Your task to perform on an android device: Go to ESPN.com Image 0: 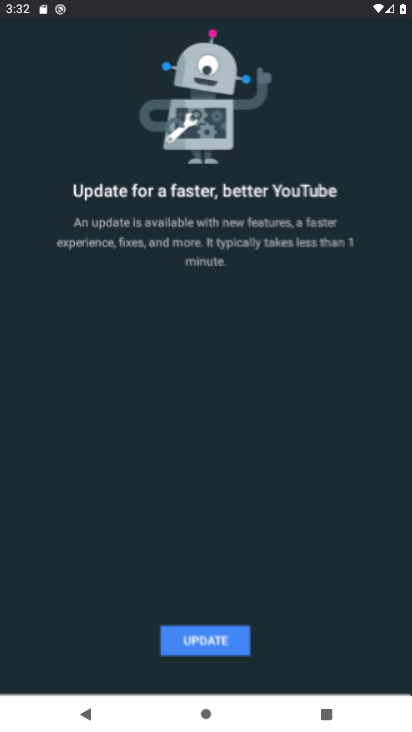
Step 0: drag from (225, 658) to (129, 241)
Your task to perform on an android device: Go to ESPN.com Image 1: 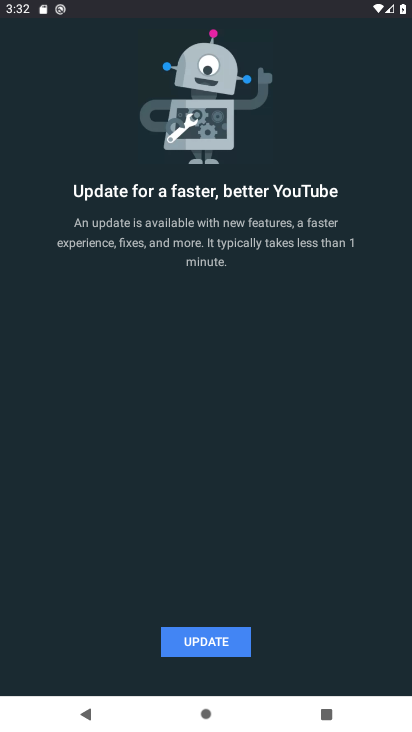
Step 1: press home button
Your task to perform on an android device: Go to ESPN.com Image 2: 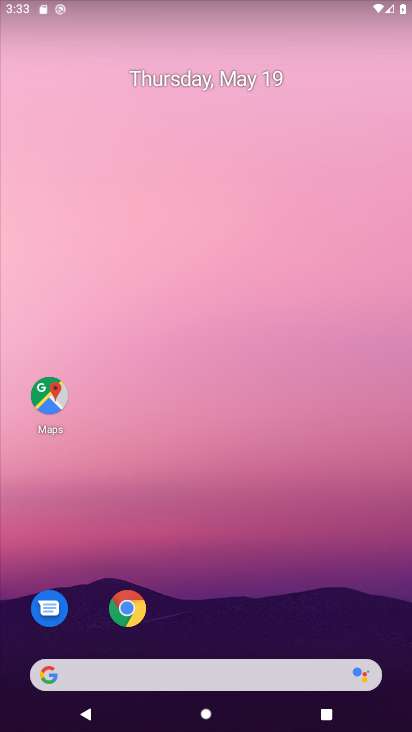
Step 2: click (114, 618)
Your task to perform on an android device: Go to ESPN.com Image 3: 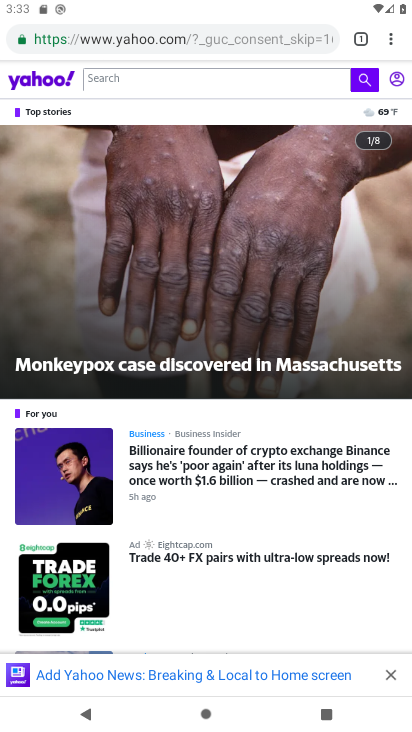
Step 3: click (365, 46)
Your task to perform on an android device: Go to ESPN.com Image 4: 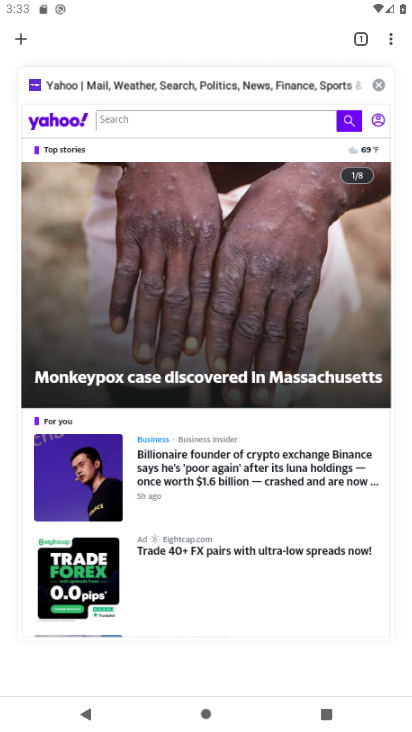
Step 4: click (376, 85)
Your task to perform on an android device: Go to ESPN.com Image 5: 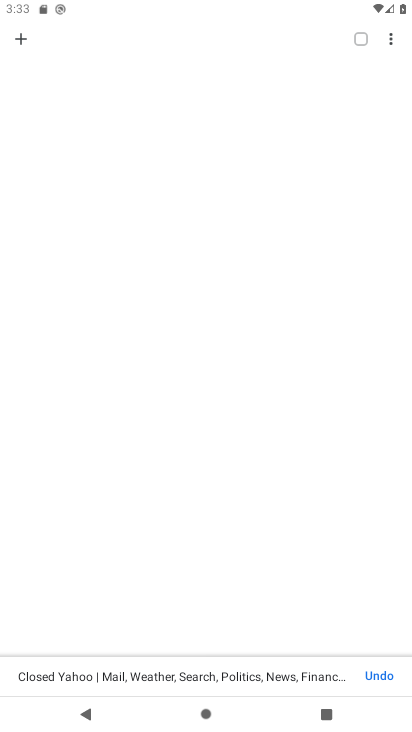
Step 5: click (17, 37)
Your task to perform on an android device: Go to ESPN.com Image 6: 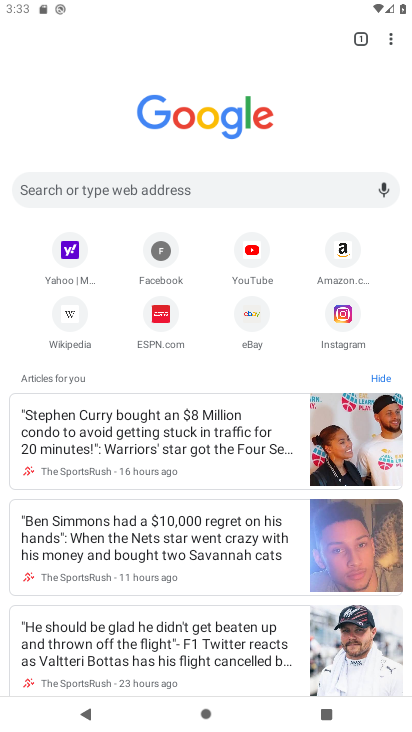
Step 6: click (152, 311)
Your task to perform on an android device: Go to ESPN.com Image 7: 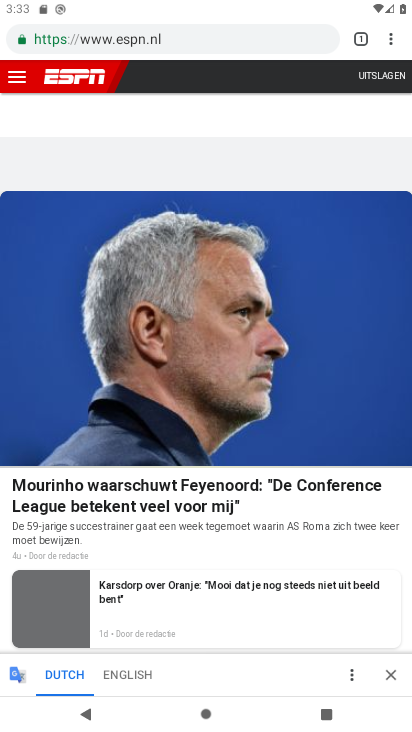
Step 7: task complete